Your task to perform on an android device: Go to Google Image 0: 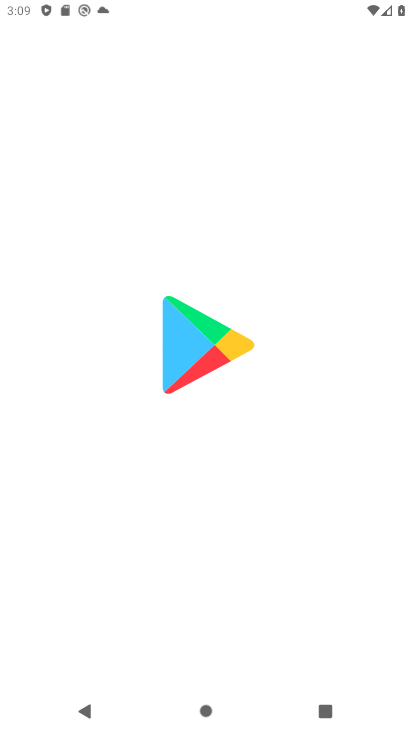
Step 0: drag from (264, 616) to (213, 139)
Your task to perform on an android device: Go to Google Image 1: 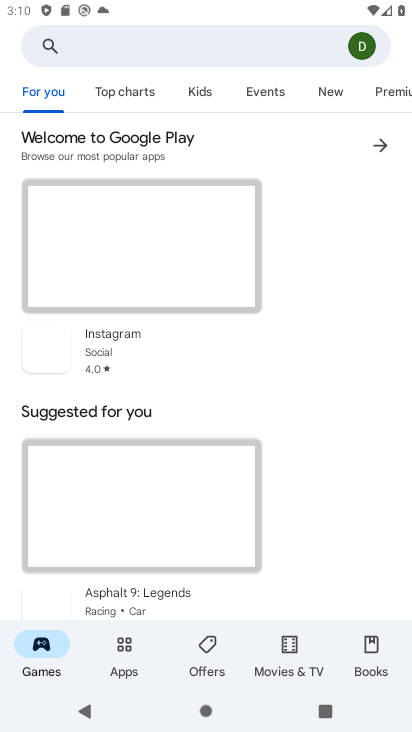
Step 1: press home button
Your task to perform on an android device: Go to Google Image 2: 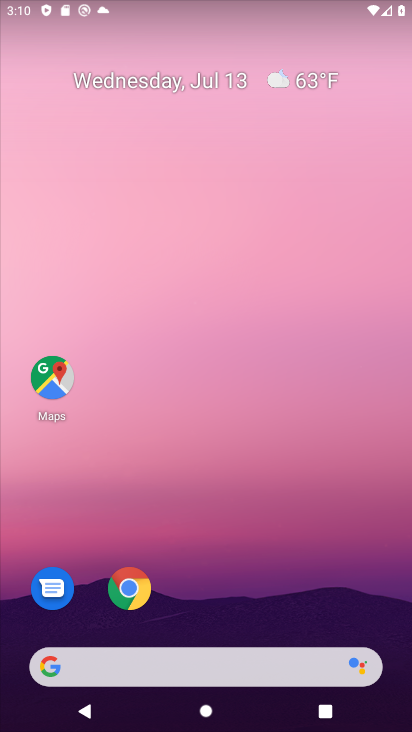
Step 2: drag from (212, 469) to (257, 75)
Your task to perform on an android device: Go to Google Image 3: 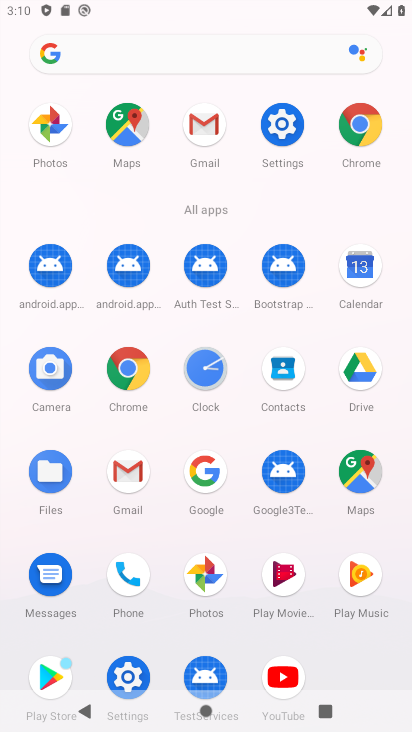
Step 3: click (202, 471)
Your task to perform on an android device: Go to Google Image 4: 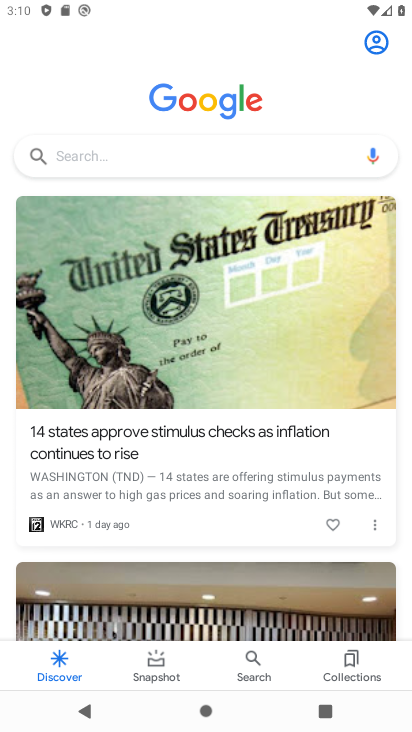
Step 4: task complete